Your task to perform on an android device: Add "bose quietcomfort 35" to the cart on amazon.com, then select checkout. Image 0: 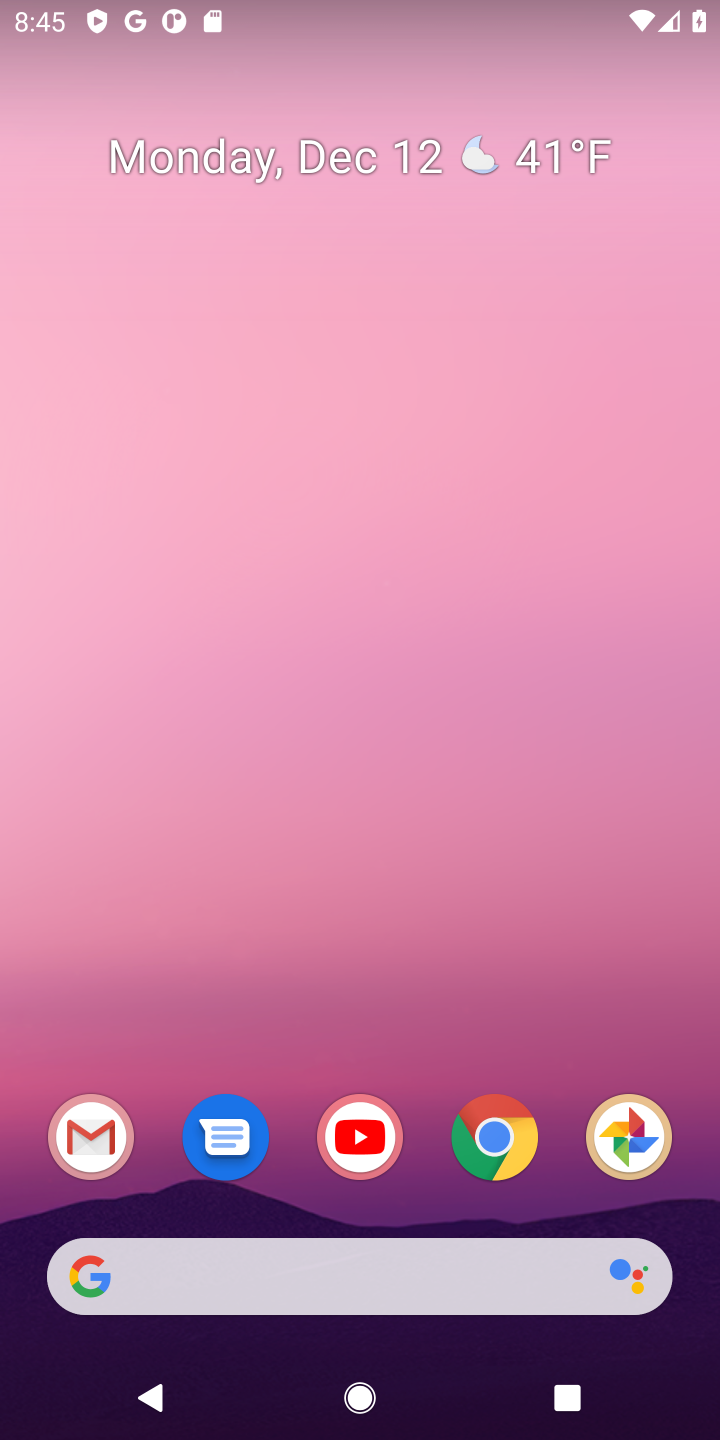
Step 0: click (488, 1138)
Your task to perform on an android device: Add "bose quietcomfort 35" to the cart on amazon.com, then select checkout. Image 1: 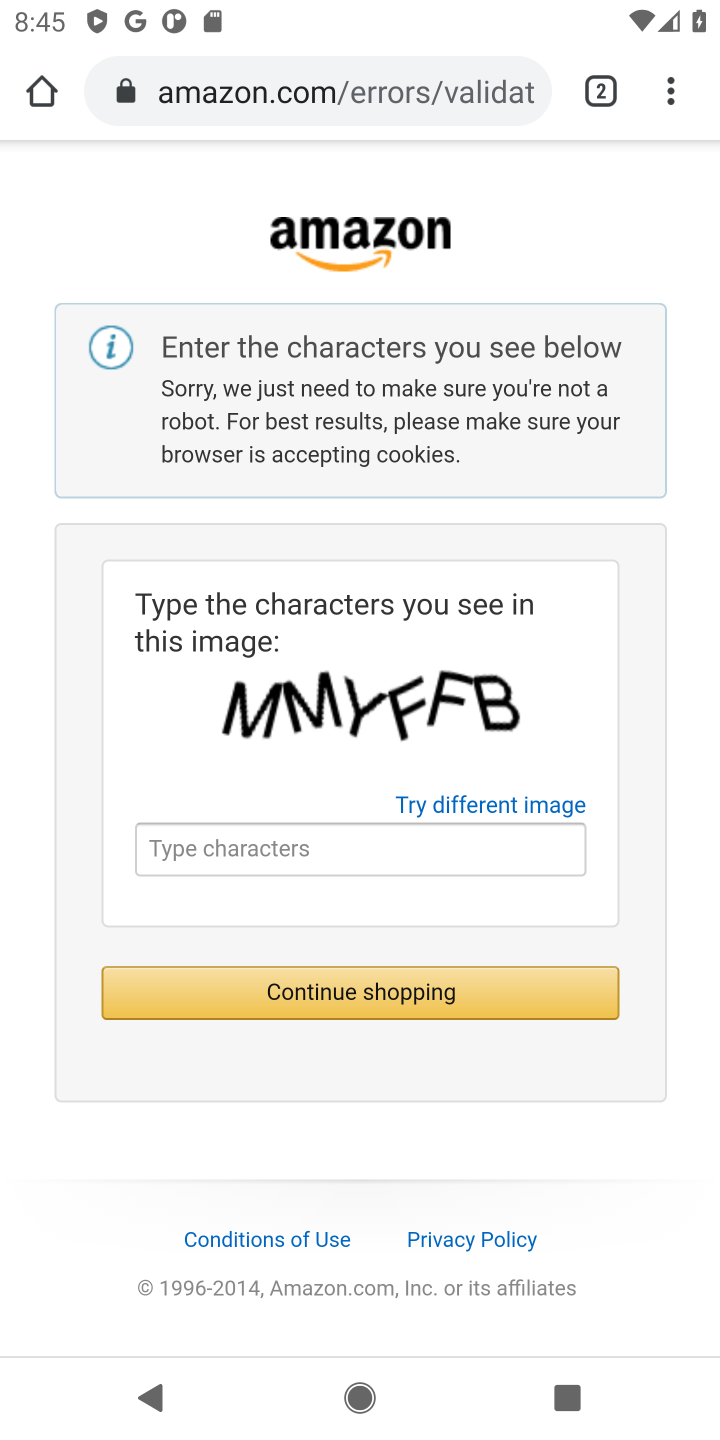
Step 1: click (408, 836)
Your task to perform on an android device: Add "bose quietcomfort 35" to the cart on amazon.com, then select checkout. Image 2: 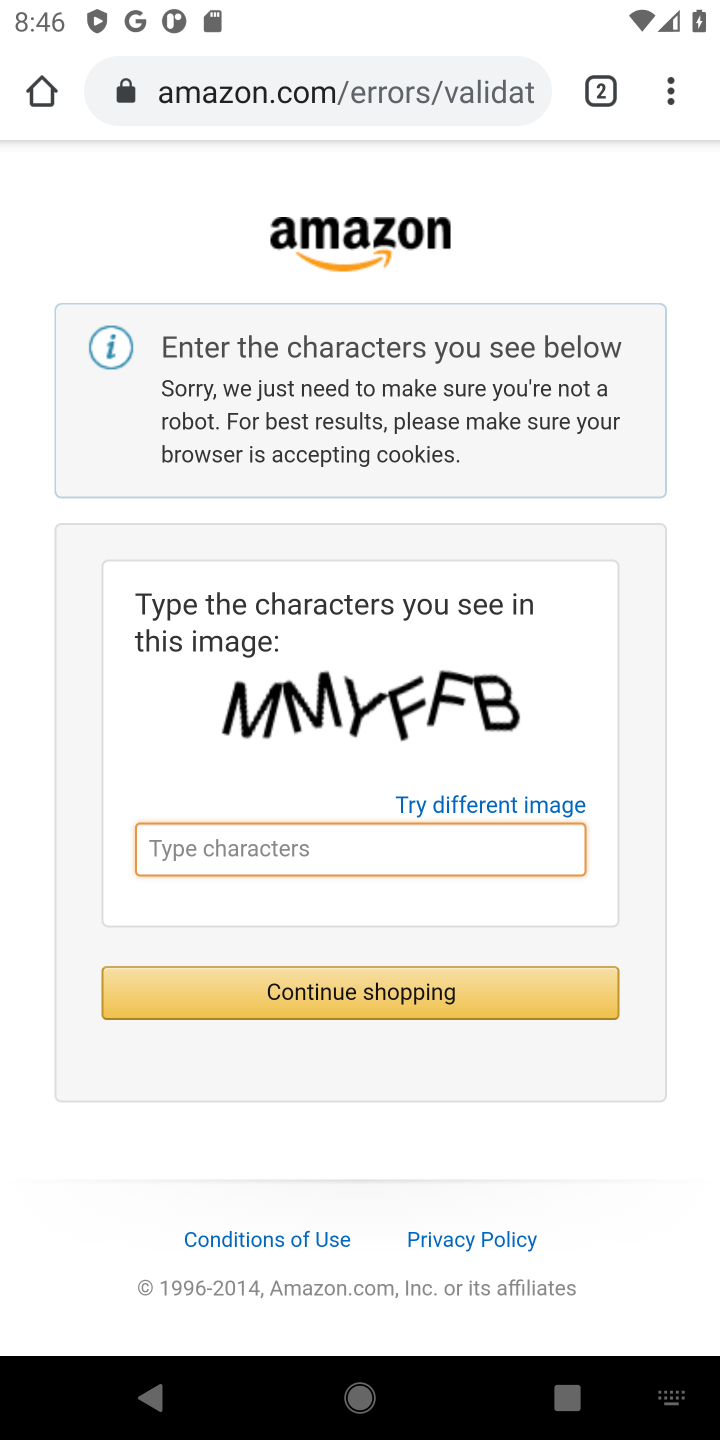
Step 2: type "MMYFFB"
Your task to perform on an android device: Add "bose quietcomfort 35" to the cart on amazon.com, then select checkout. Image 3: 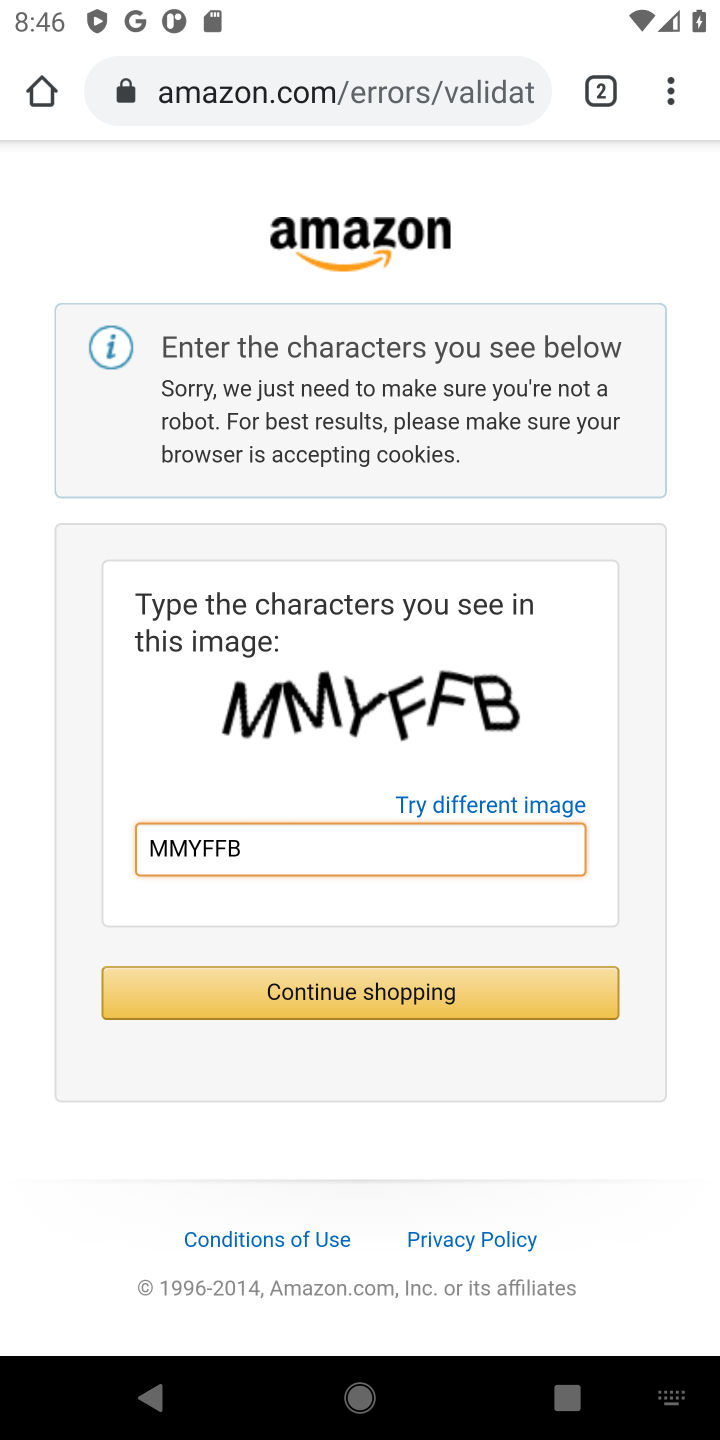
Step 3: click (283, 995)
Your task to perform on an android device: Add "bose quietcomfort 35" to the cart on amazon.com, then select checkout. Image 4: 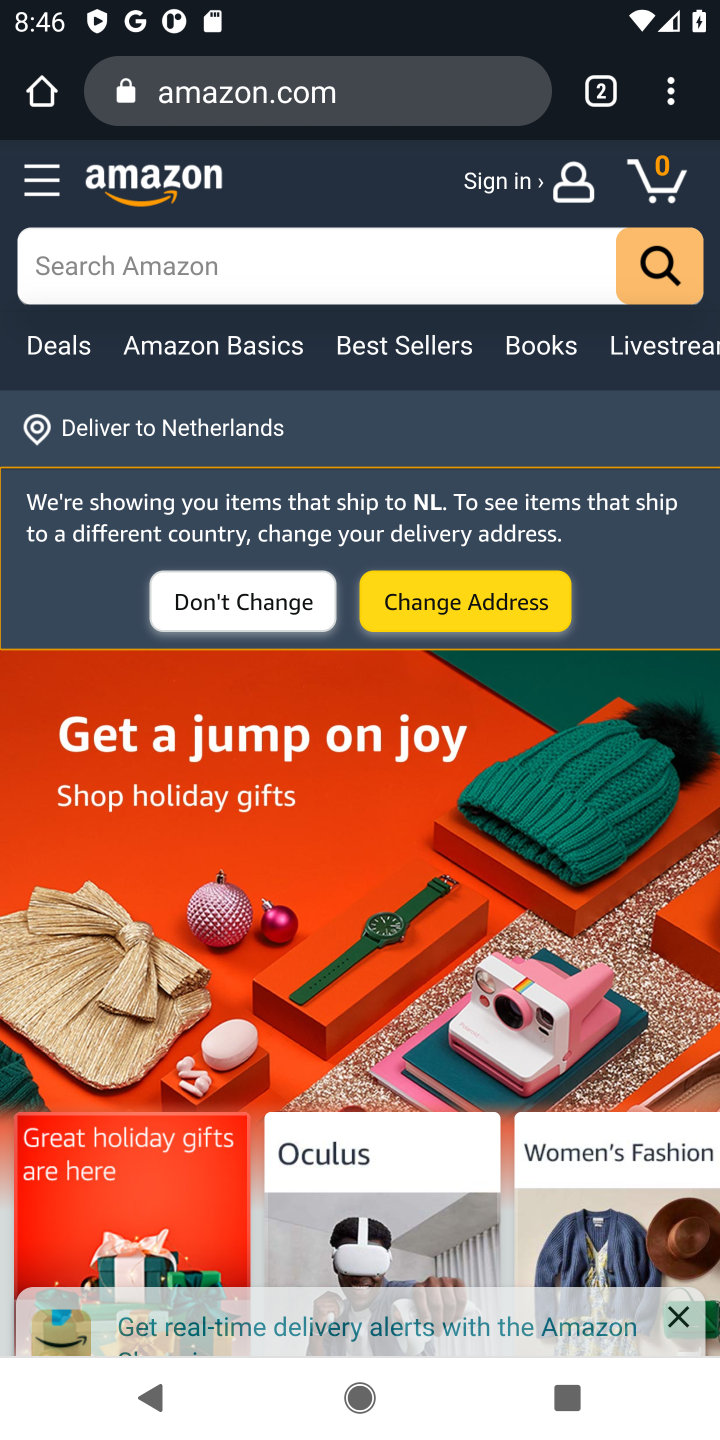
Step 4: click (302, 278)
Your task to perform on an android device: Add "bose quietcomfort 35" to the cart on amazon.com, then select checkout. Image 5: 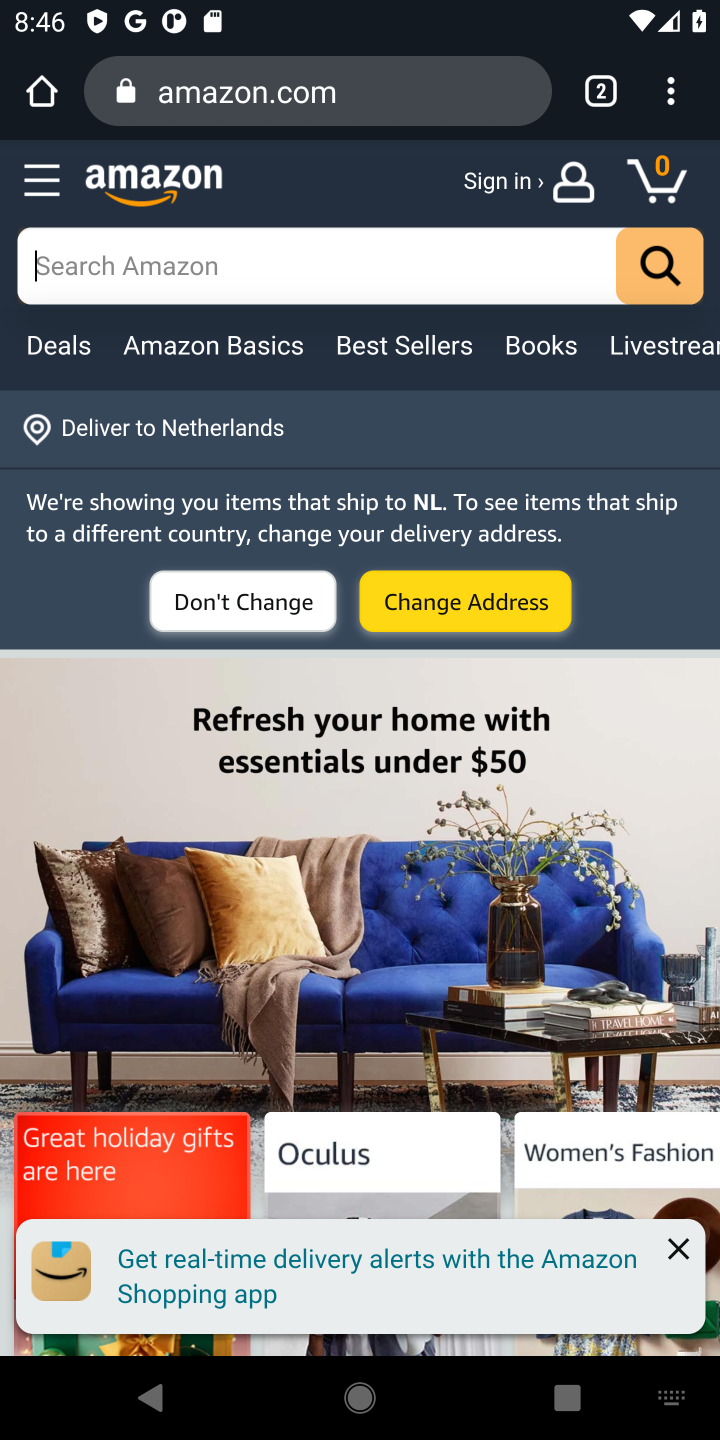
Step 5: type "bose quietcomfort 35"
Your task to perform on an android device: Add "bose quietcomfort 35" to the cart on amazon.com, then select checkout. Image 6: 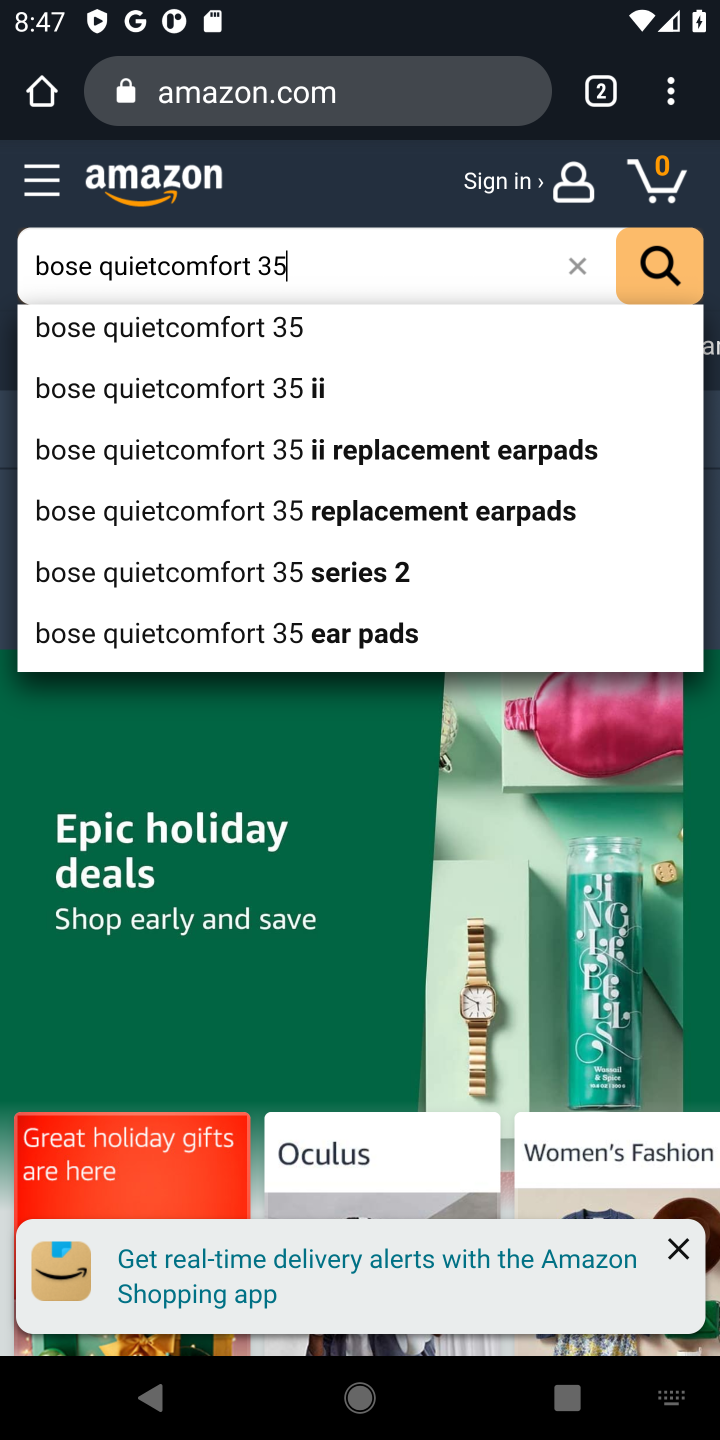
Step 6: click (279, 333)
Your task to perform on an android device: Add "bose quietcomfort 35" to the cart on amazon.com, then select checkout. Image 7: 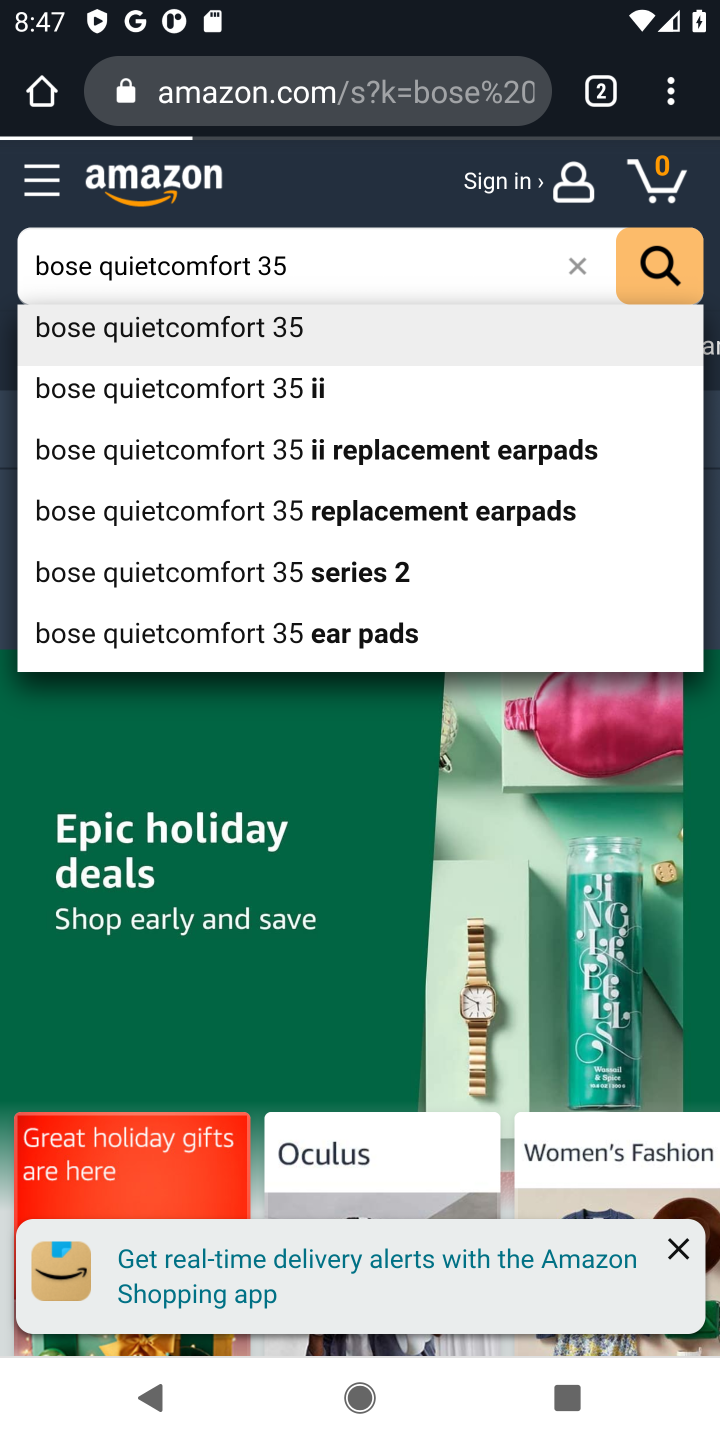
Step 7: click (279, 333)
Your task to perform on an android device: Add "bose quietcomfort 35" to the cart on amazon.com, then select checkout. Image 8: 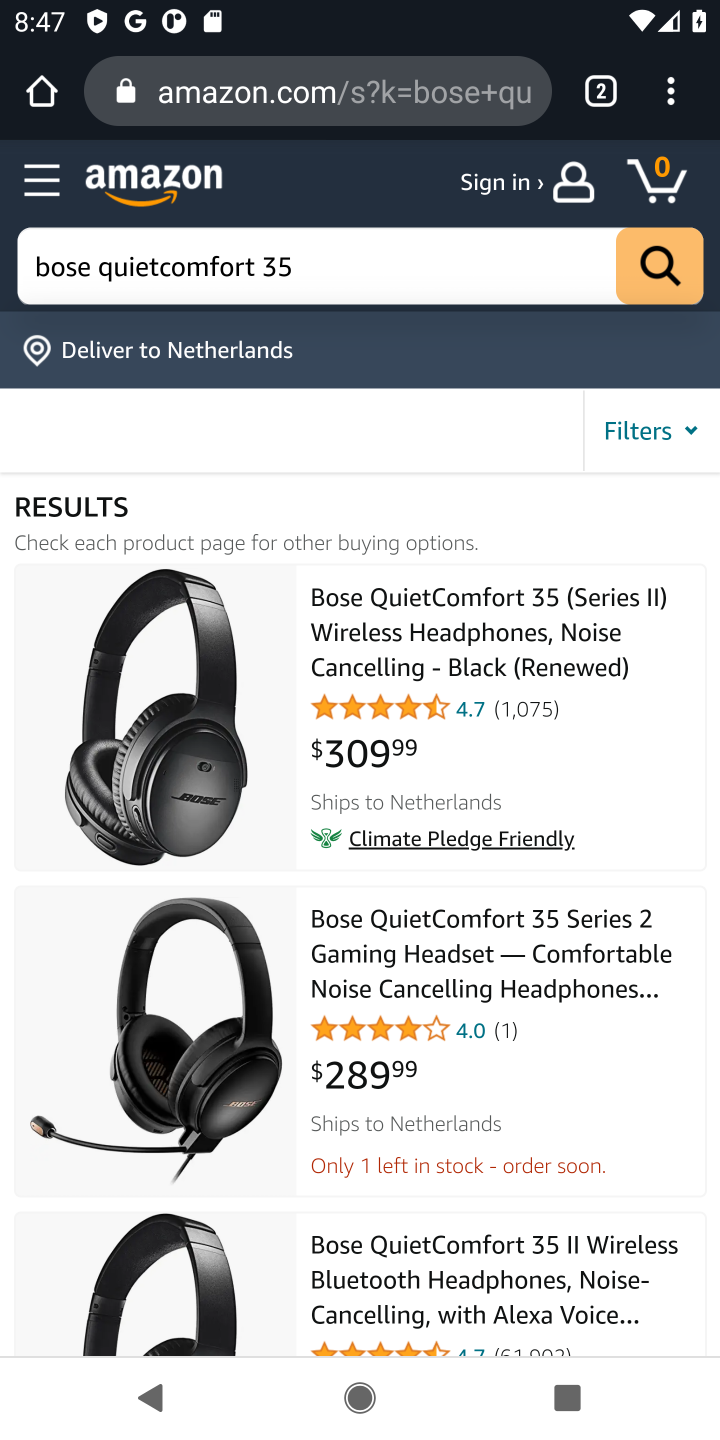
Step 8: click (507, 742)
Your task to perform on an android device: Add "bose quietcomfort 35" to the cart on amazon.com, then select checkout. Image 9: 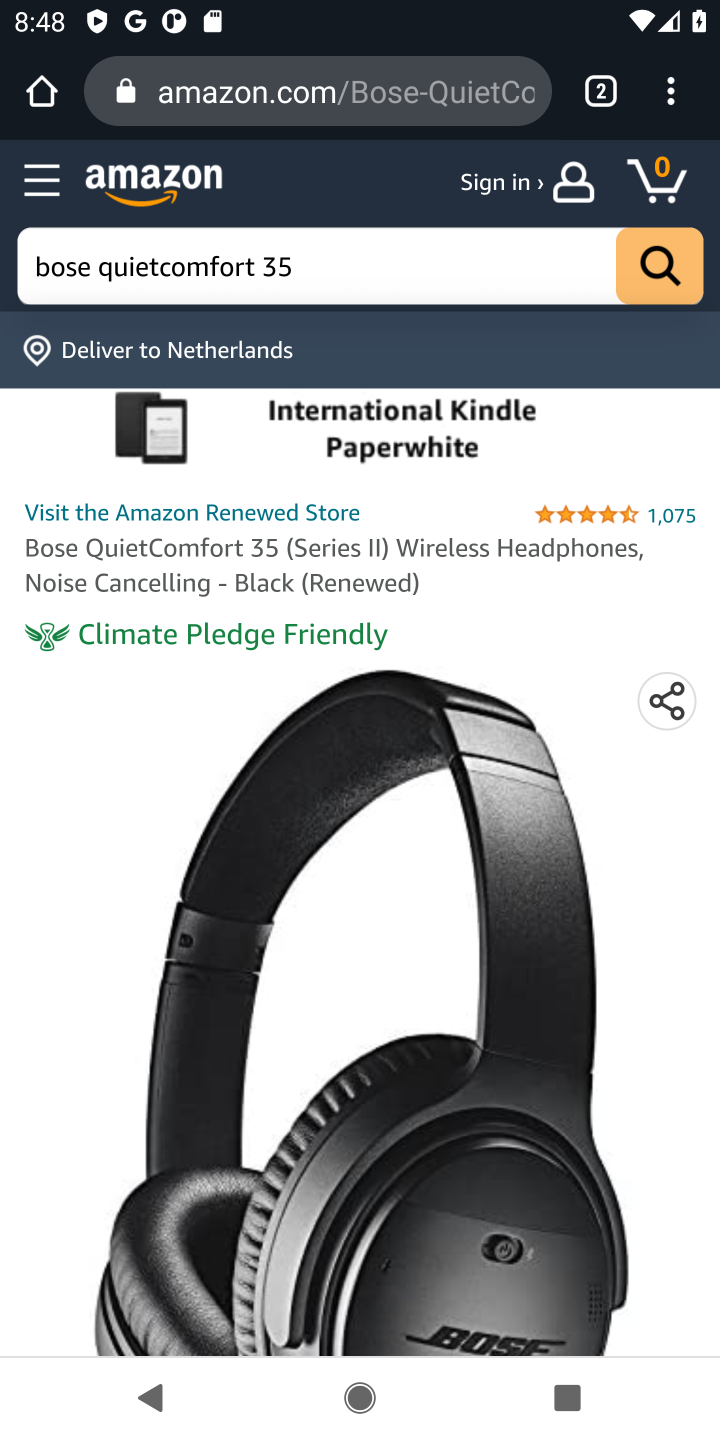
Step 9: drag from (554, 1176) to (513, 456)
Your task to perform on an android device: Add "bose quietcomfort 35" to the cart on amazon.com, then select checkout. Image 10: 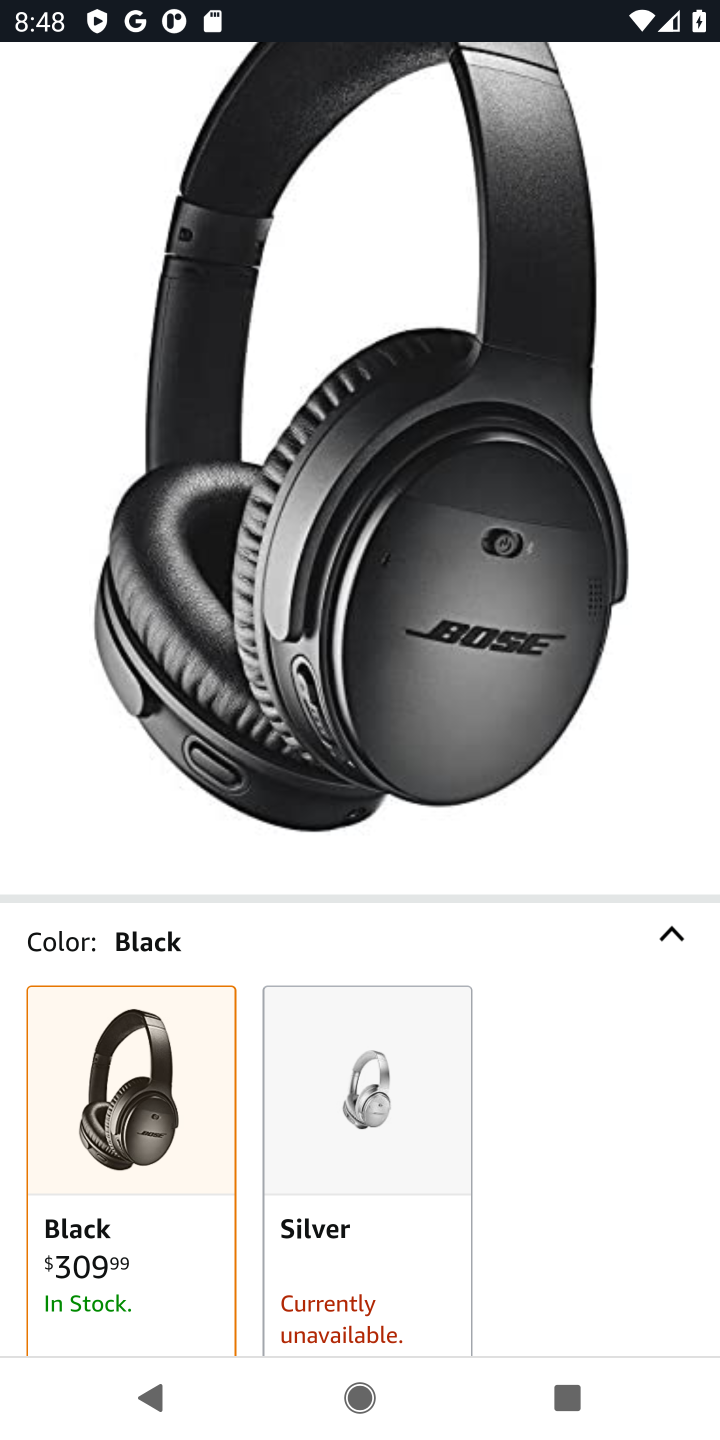
Step 10: drag from (555, 1245) to (554, 149)
Your task to perform on an android device: Add "bose quietcomfort 35" to the cart on amazon.com, then select checkout. Image 11: 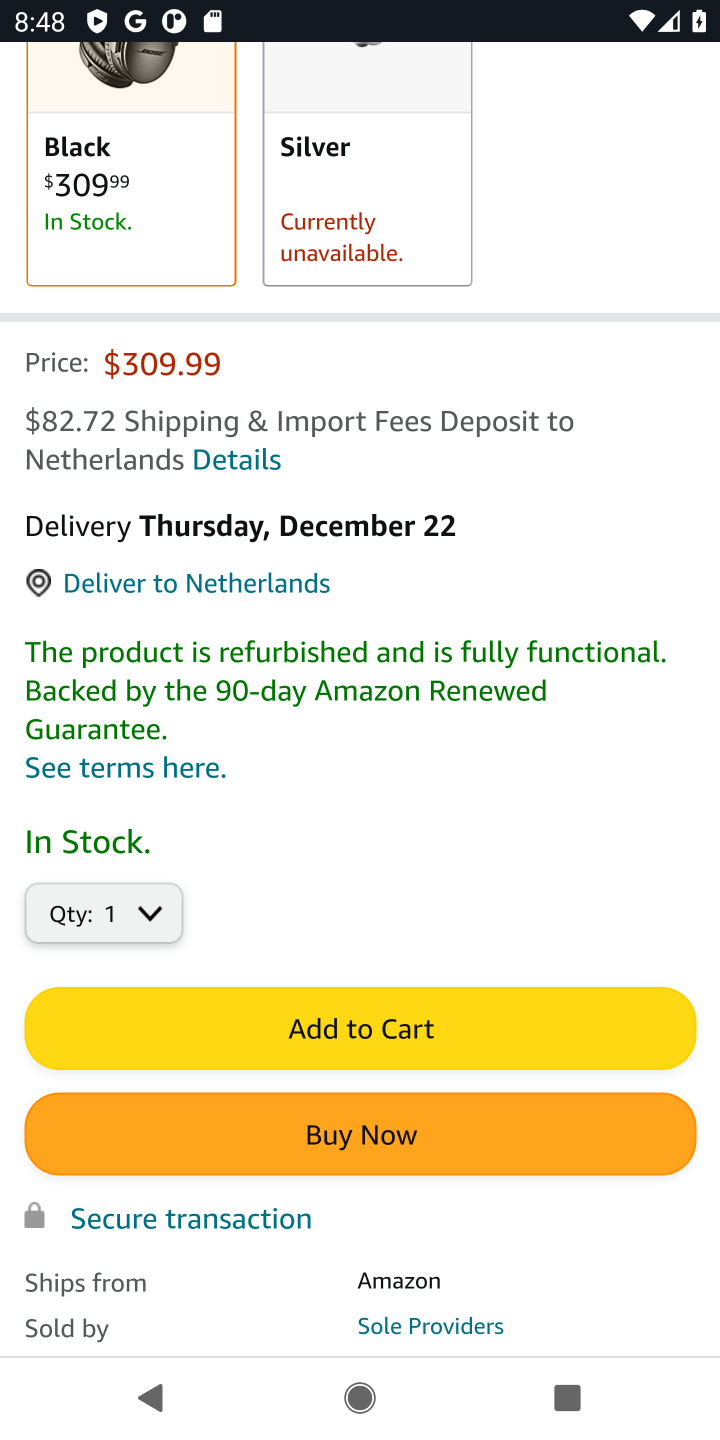
Step 11: click (365, 1037)
Your task to perform on an android device: Add "bose quietcomfort 35" to the cart on amazon.com, then select checkout. Image 12: 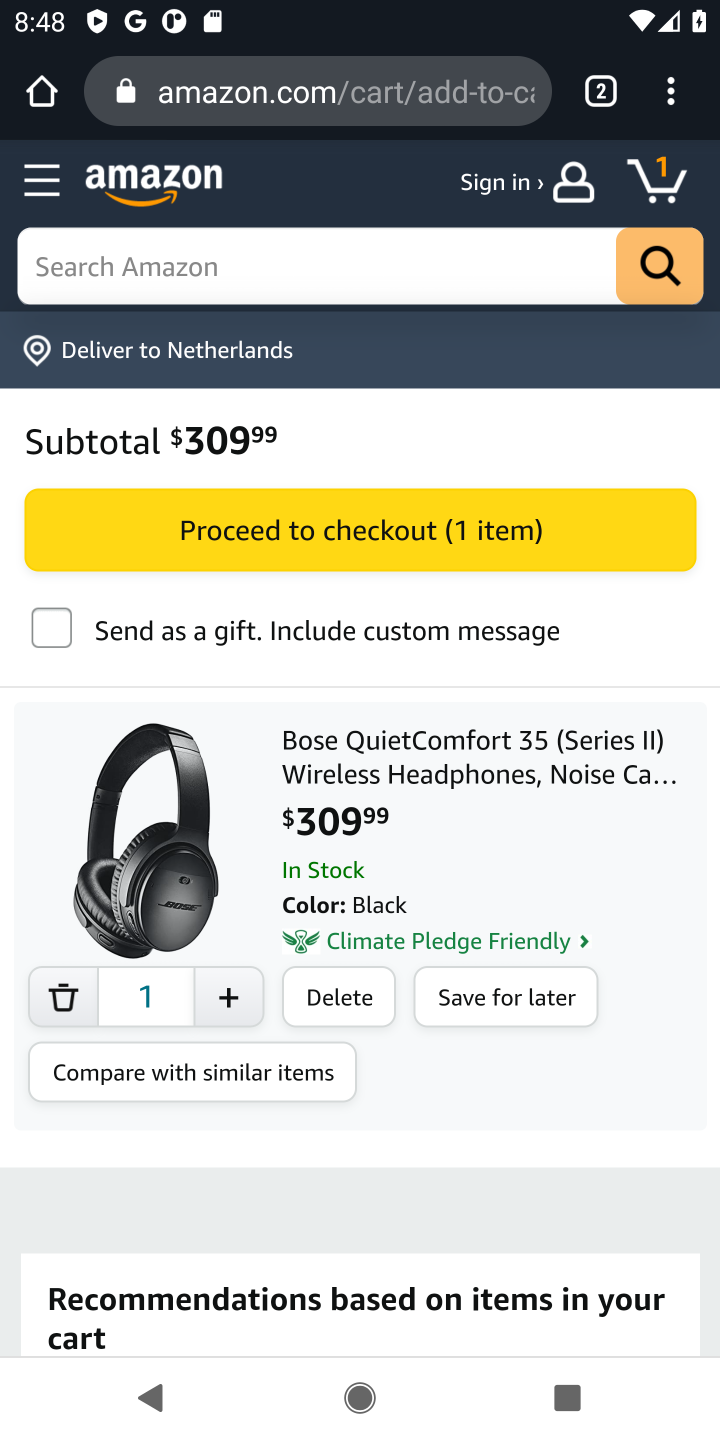
Step 12: click (489, 521)
Your task to perform on an android device: Add "bose quietcomfort 35" to the cart on amazon.com, then select checkout. Image 13: 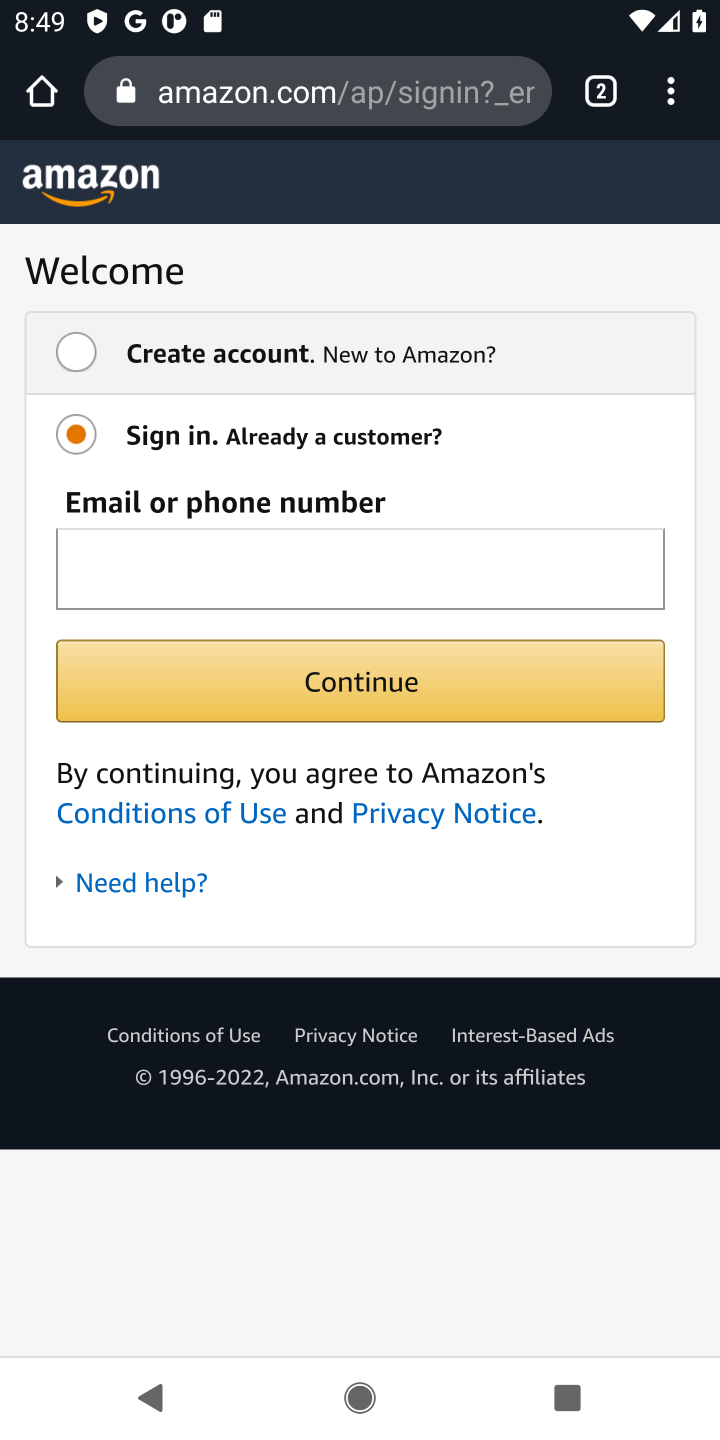
Step 13: task complete